Your task to perform on an android device: Open Reddit.com Image 0: 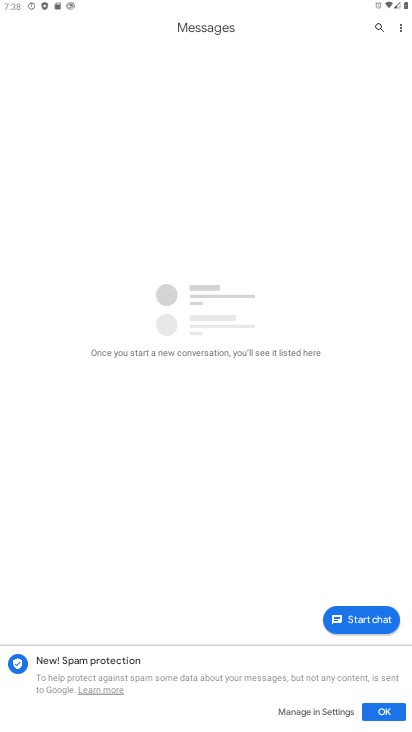
Step 0: drag from (371, 672) to (166, 66)
Your task to perform on an android device: Open Reddit.com Image 1: 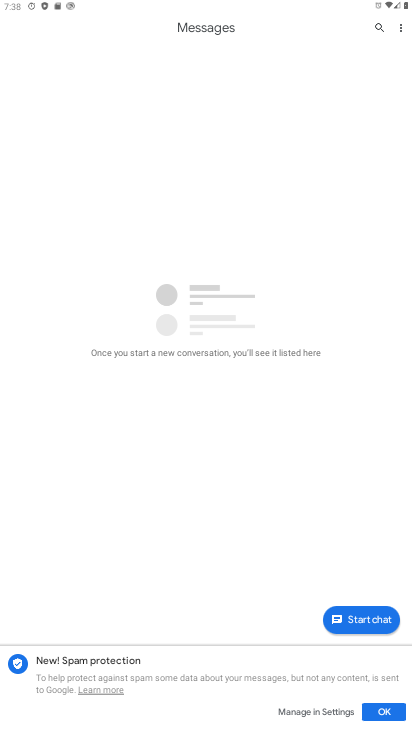
Step 1: press home button
Your task to perform on an android device: Open Reddit.com Image 2: 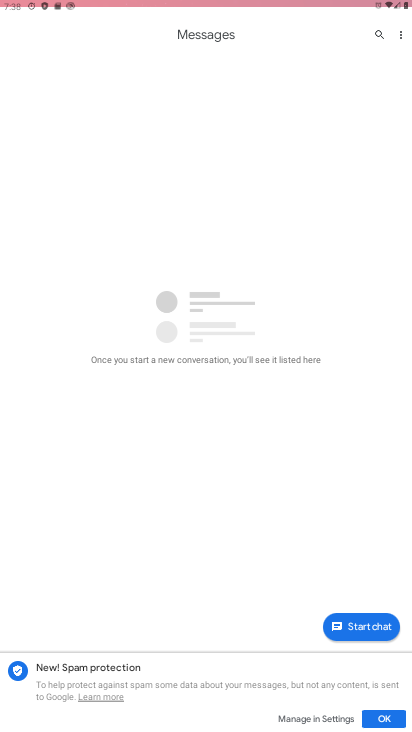
Step 2: drag from (367, 720) to (140, 20)
Your task to perform on an android device: Open Reddit.com Image 3: 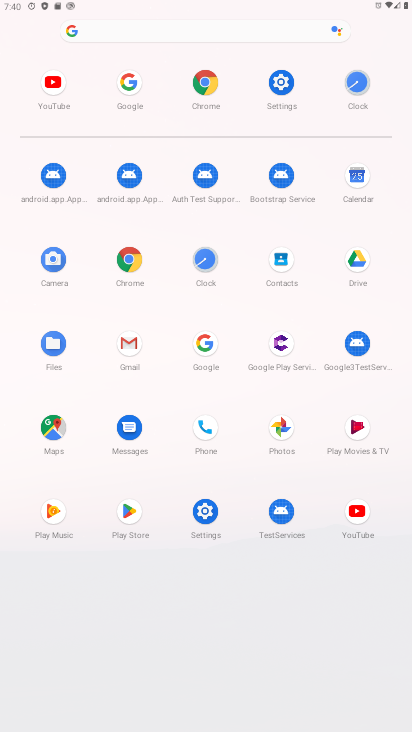
Step 3: click (203, 347)
Your task to perform on an android device: Open Reddit.com Image 4: 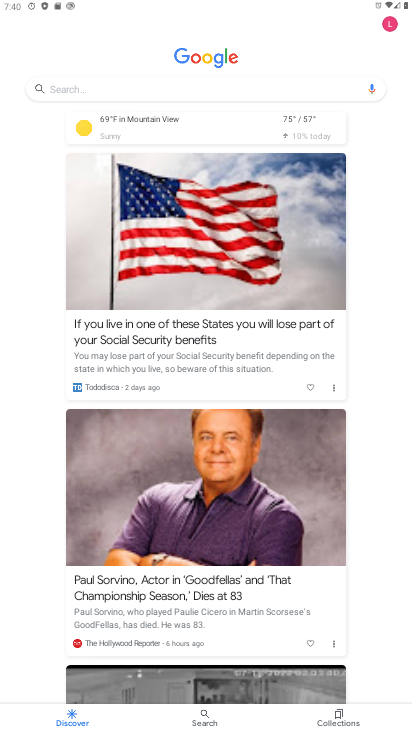
Step 4: click (86, 75)
Your task to perform on an android device: Open Reddit.com Image 5: 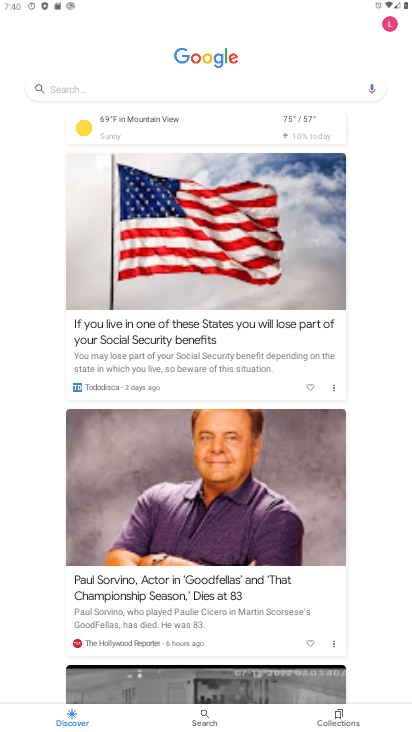
Step 5: click (76, 94)
Your task to perform on an android device: Open Reddit.com Image 6: 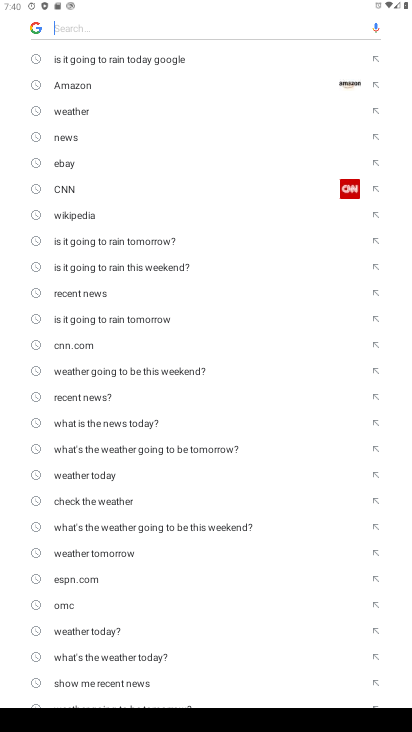
Step 6: type "Reddit.com"
Your task to perform on an android device: Open Reddit.com Image 7: 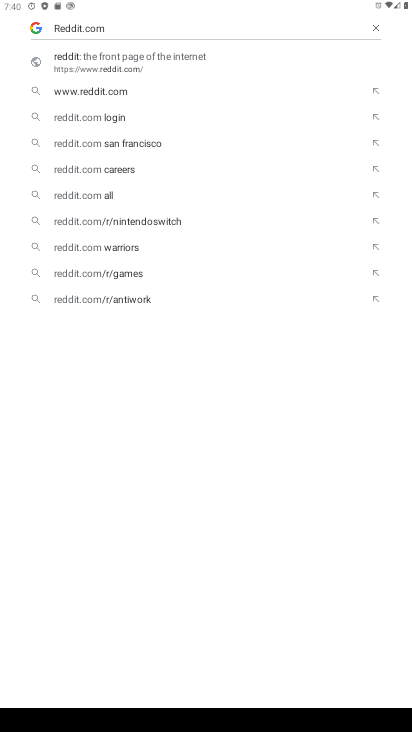
Step 7: click (123, 67)
Your task to perform on an android device: Open Reddit.com Image 8: 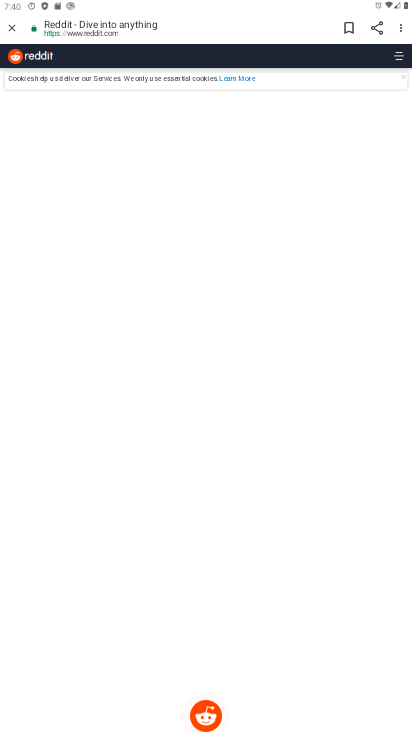
Step 8: task complete